Your task to perform on an android device: open app "Upside-Cash back on gas & food" (install if not already installed) Image 0: 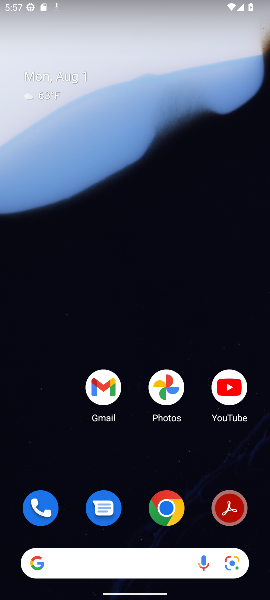
Step 0: drag from (141, 532) to (157, 4)
Your task to perform on an android device: open app "Upside-Cash back on gas & food" (install if not already installed) Image 1: 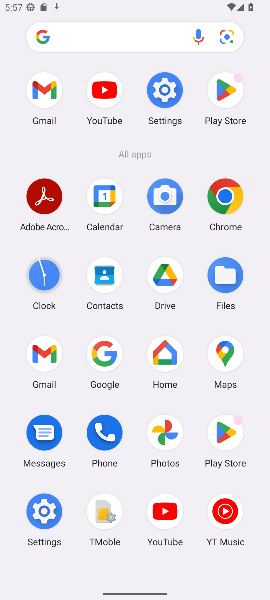
Step 1: click (223, 442)
Your task to perform on an android device: open app "Upside-Cash back on gas & food" (install if not already installed) Image 2: 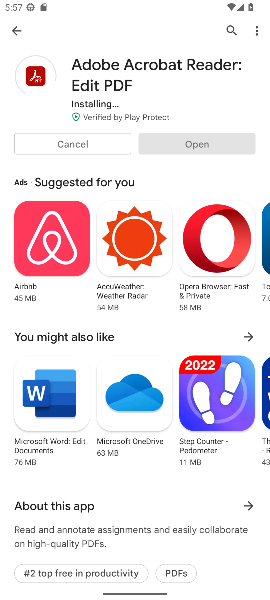
Step 2: click (12, 33)
Your task to perform on an android device: open app "Upside-Cash back on gas & food" (install if not already installed) Image 3: 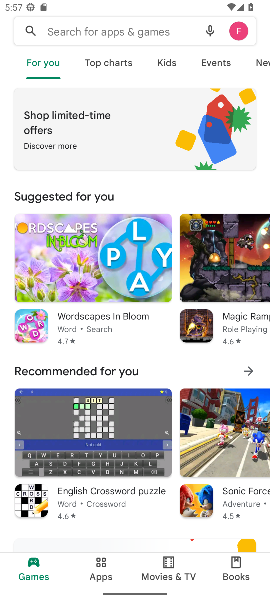
Step 3: click (123, 33)
Your task to perform on an android device: open app "Upside-Cash back on gas & food" (install if not already installed) Image 4: 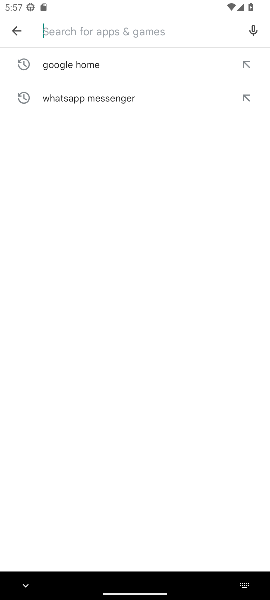
Step 4: type "Upside-Cash back on gas & food"
Your task to perform on an android device: open app "Upside-Cash back on gas & food" (install if not already installed) Image 5: 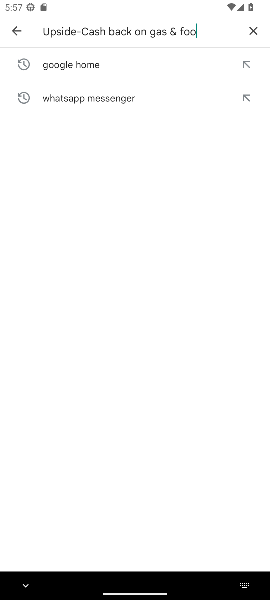
Step 5: type ""
Your task to perform on an android device: open app "Upside-Cash back on gas & food" (install if not already installed) Image 6: 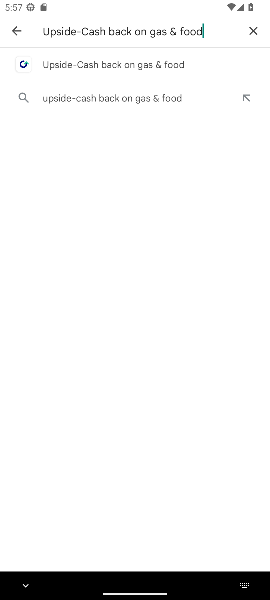
Step 6: click (60, 58)
Your task to perform on an android device: open app "Upside-Cash back on gas & food" (install if not already installed) Image 7: 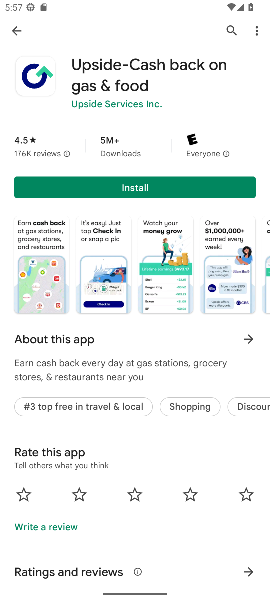
Step 7: task complete